Your task to perform on an android device: open the mobile data screen to see how much data has been used Image 0: 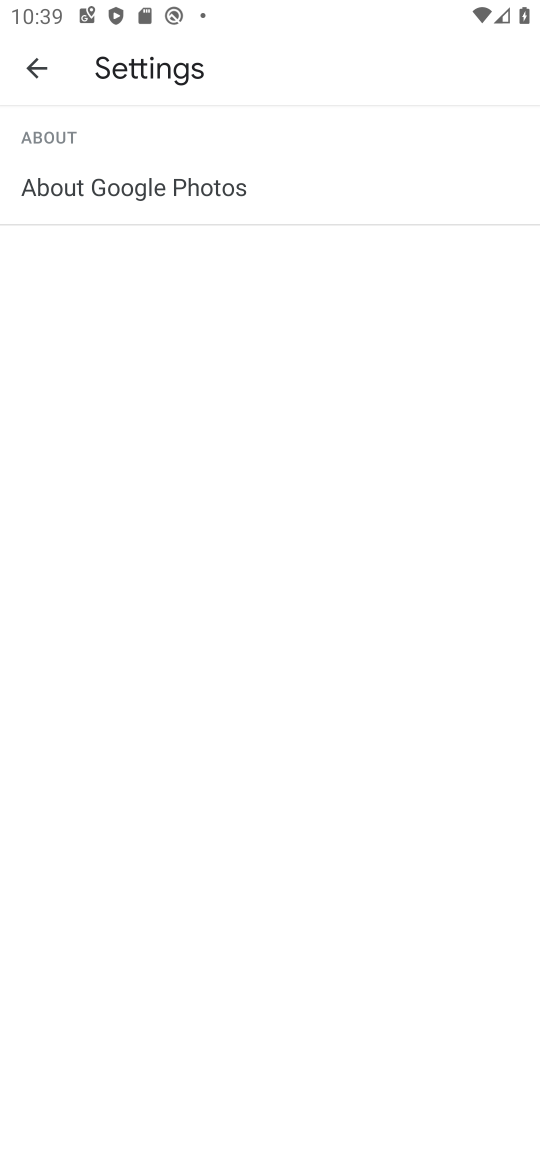
Step 0: press home button
Your task to perform on an android device: open the mobile data screen to see how much data has been used Image 1: 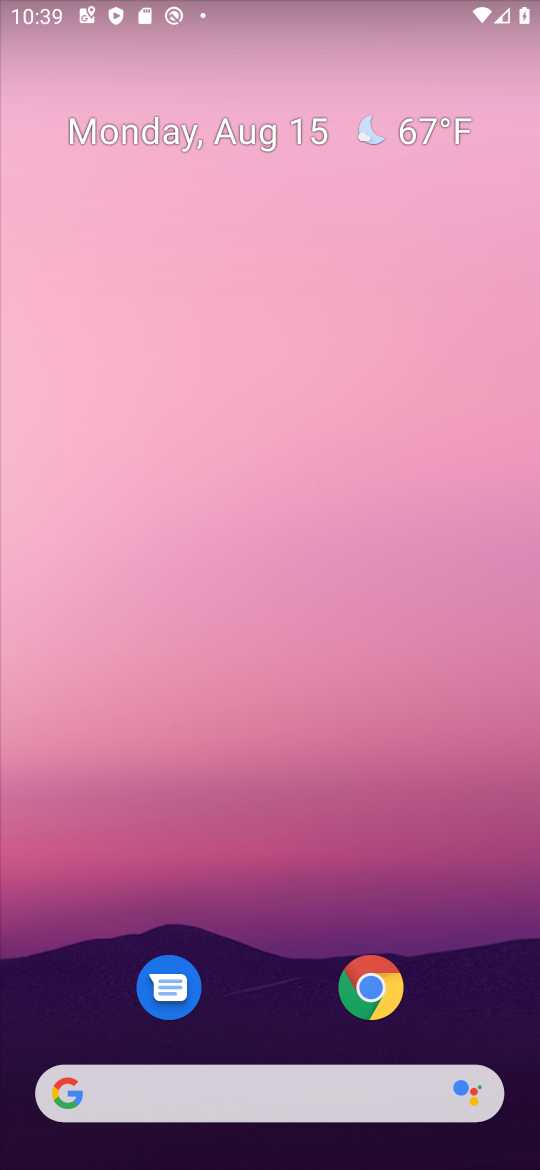
Step 1: drag from (218, 1045) to (161, 189)
Your task to perform on an android device: open the mobile data screen to see how much data has been used Image 2: 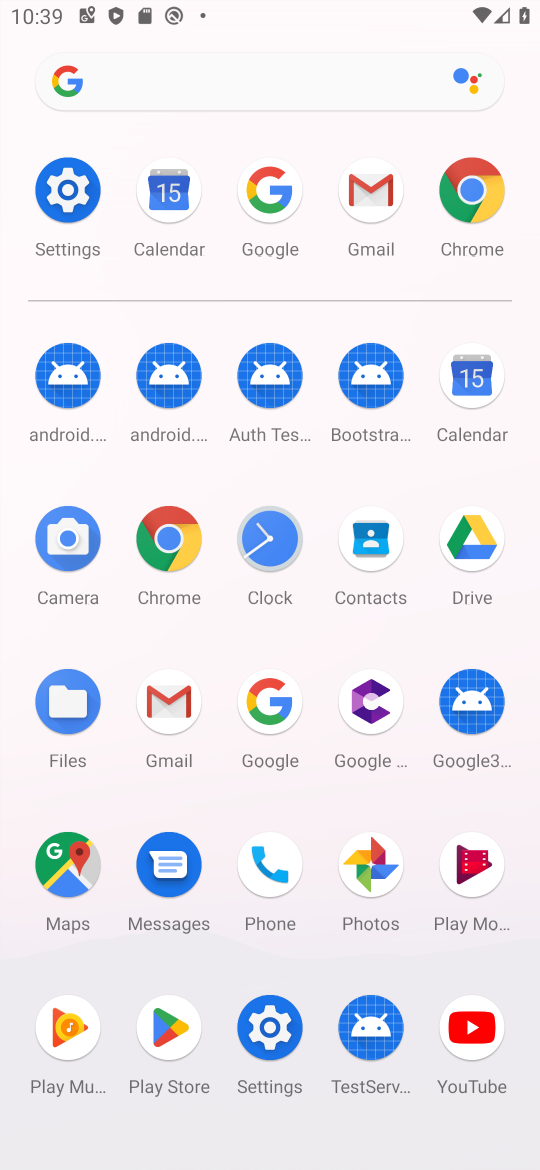
Step 2: click (282, 1018)
Your task to perform on an android device: open the mobile data screen to see how much data has been used Image 3: 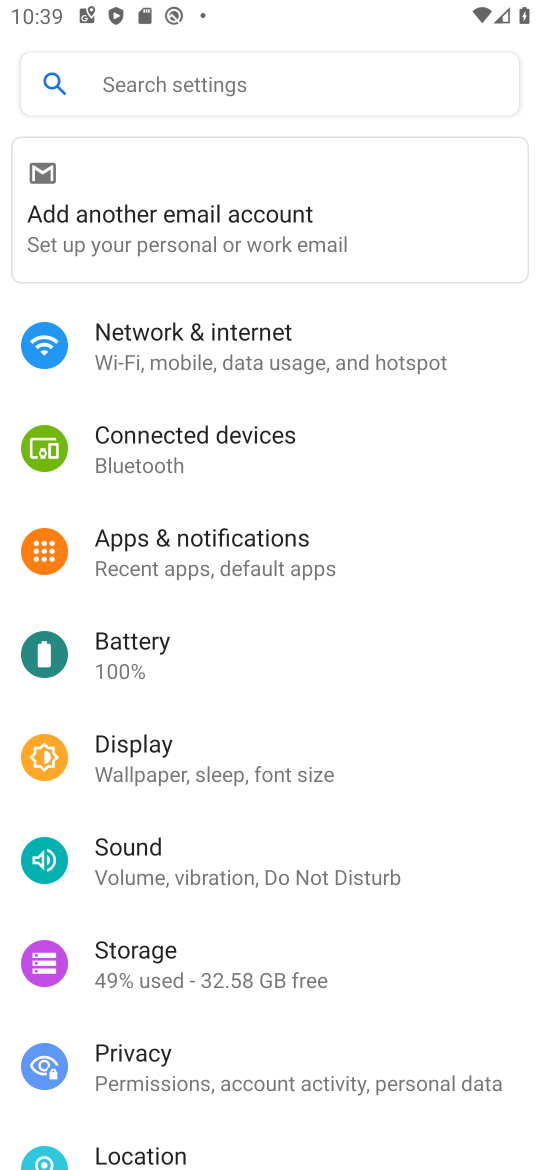
Step 3: click (138, 352)
Your task to perform on an android device: open the mobile data screen to see how much data has been used Image 4: 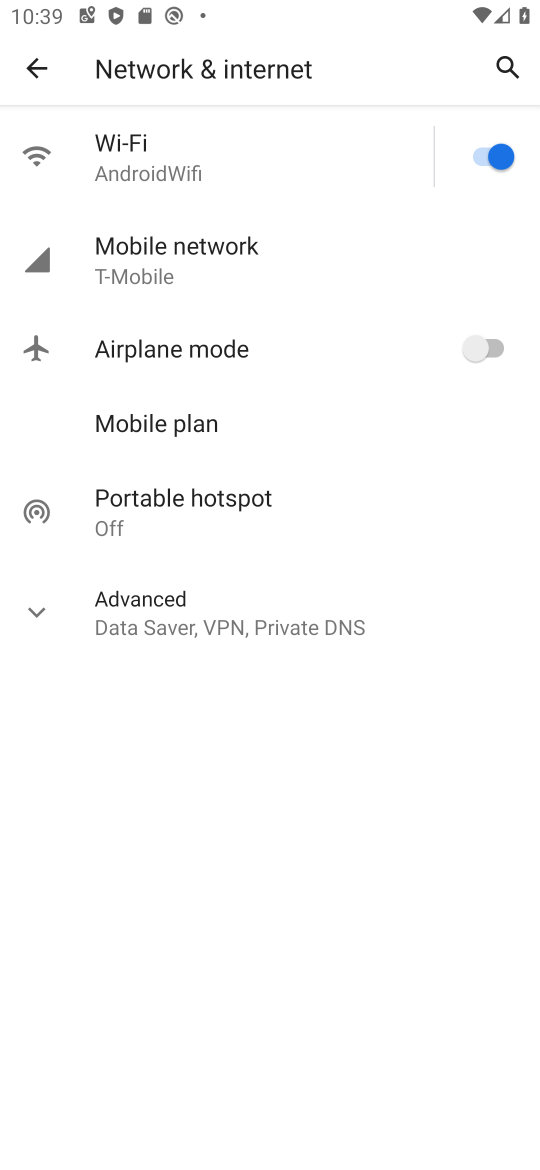
Step 4: click (120, 615)
Your task to perform on an android device: open the mobile data screen to see how much data has been used Image 5: 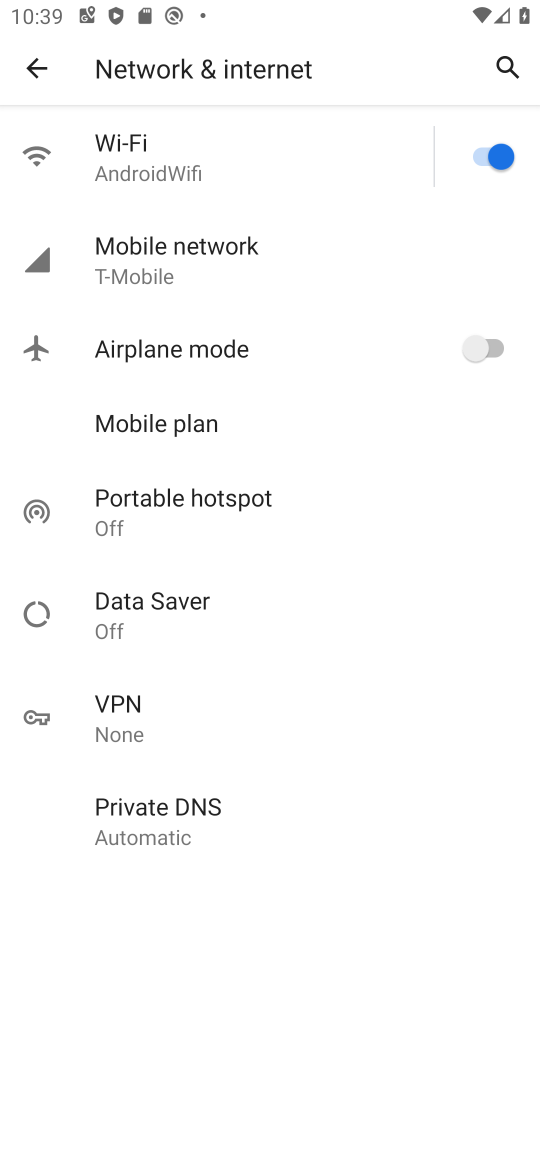
Step 5: click (164, 258)
Your task to perform on an android device: open the mobile data screen to see how much data has been used Image 6: 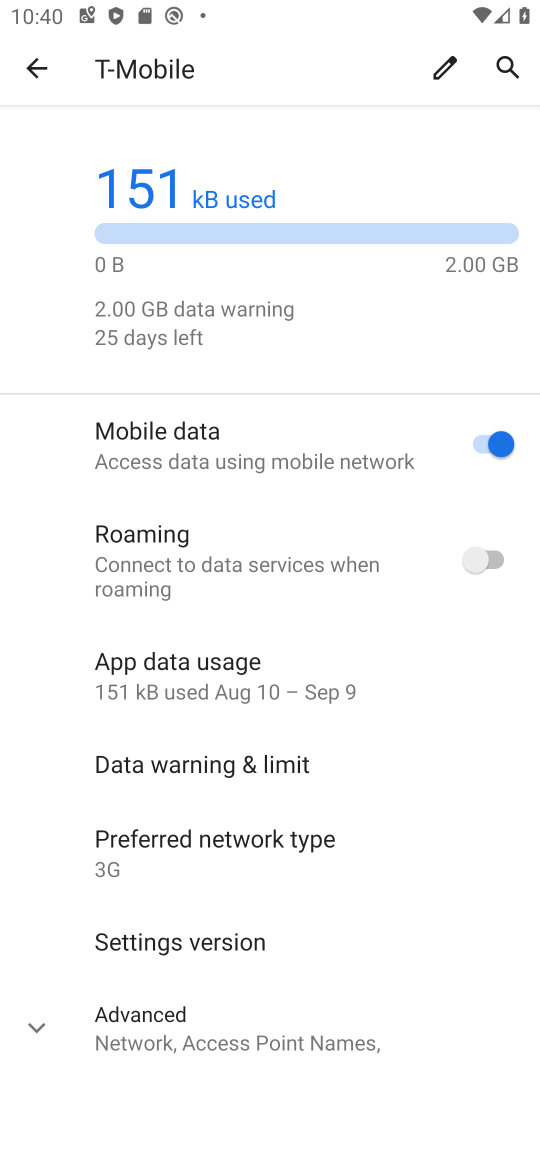
Step 6: task complete